Your task to perform on an android device: Search for good Indian restaurants Image 0: 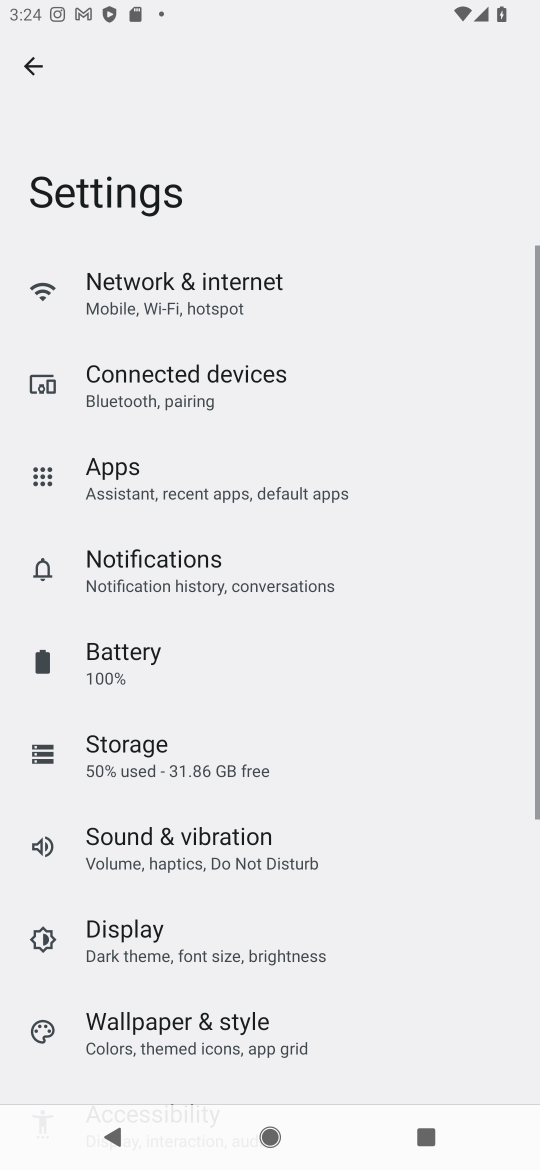
Step 0: press home button
Your task to perform on an android device: Search for good Indian restaurants Image 1: 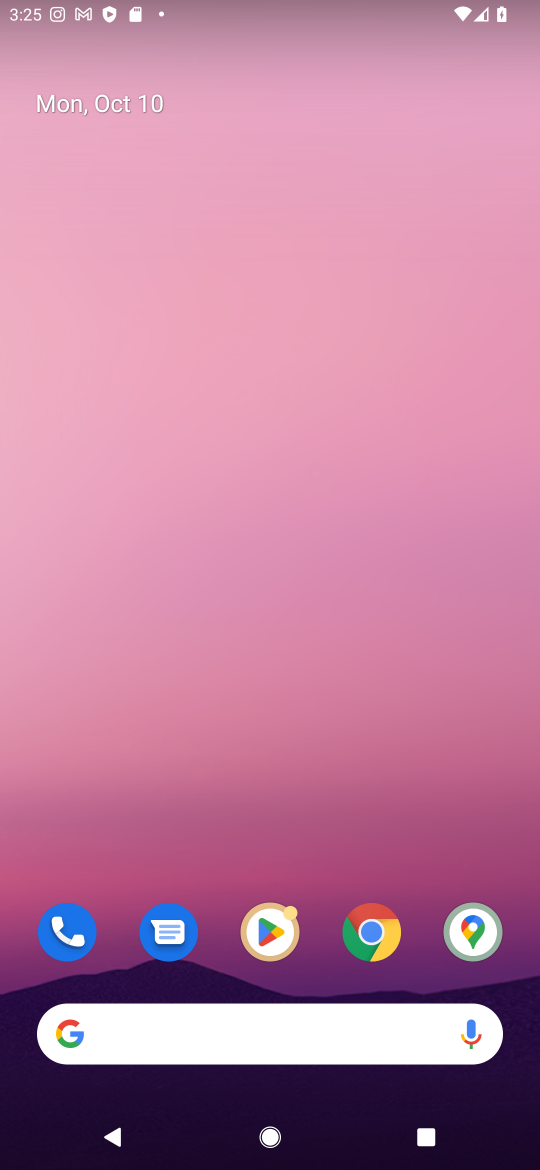
Step 1: click (309, 1036)
Your task to perform on an android device: Search for good Indian restaurants Image 2: 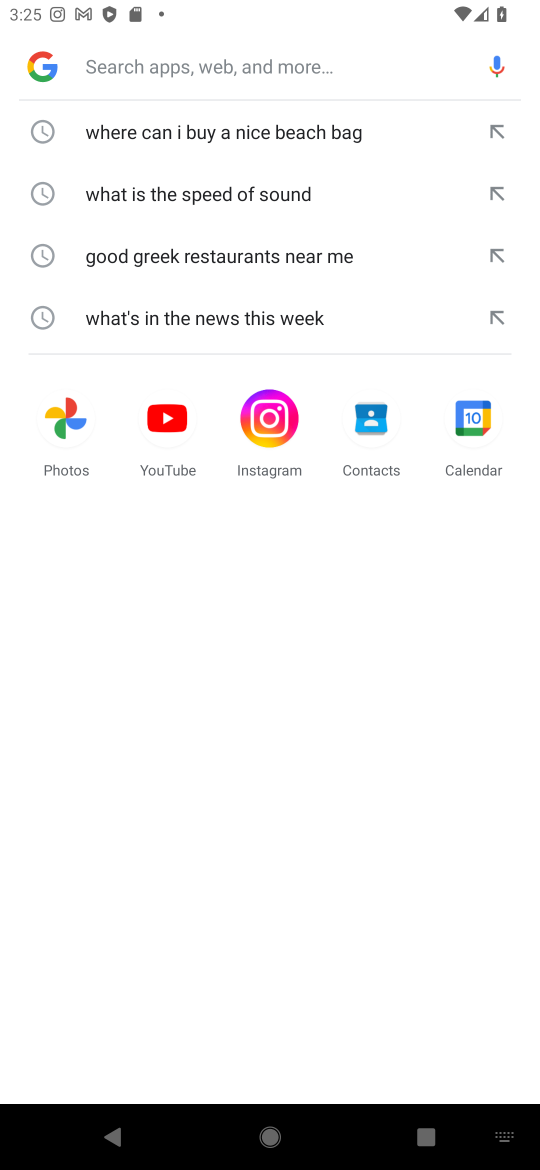
Step 2: press enter
Your task to perform on an android device: Search for good Indian restaurants Image 3: 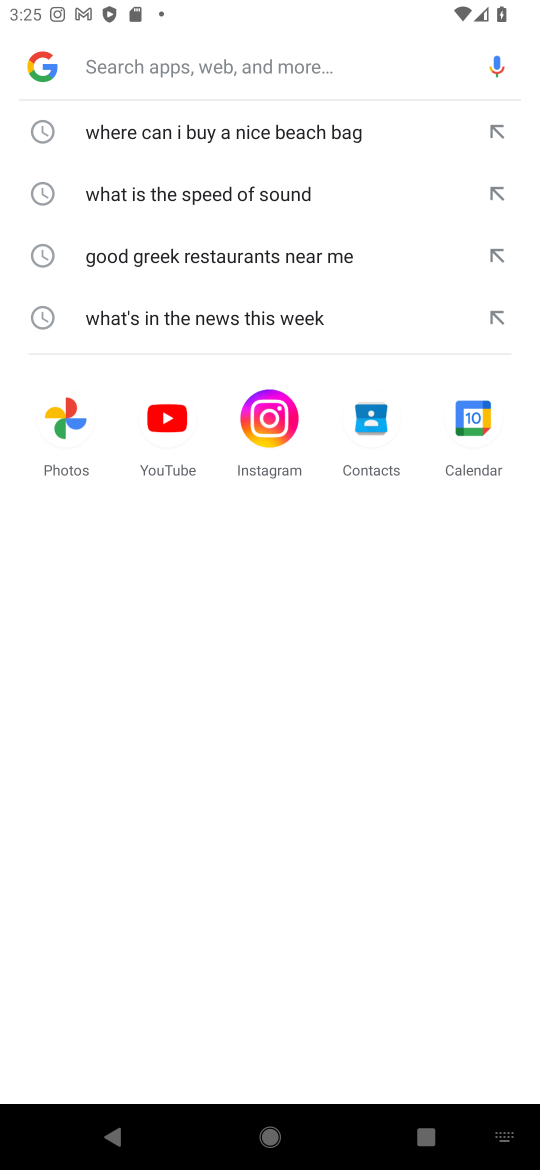
Step 3: type "Search for good Indian restaurants"
Your task to perform on an android device: Search for good Indian restaurants Image 4: 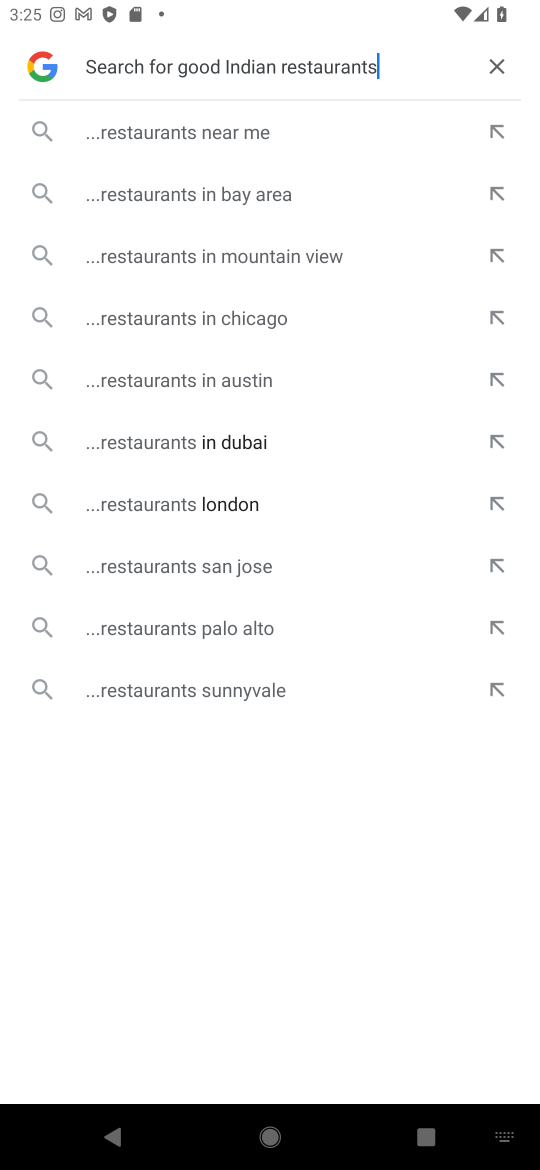
Step 4: press enter
Your task to perform on an android device: Search for good Indian restaurants Image 5: 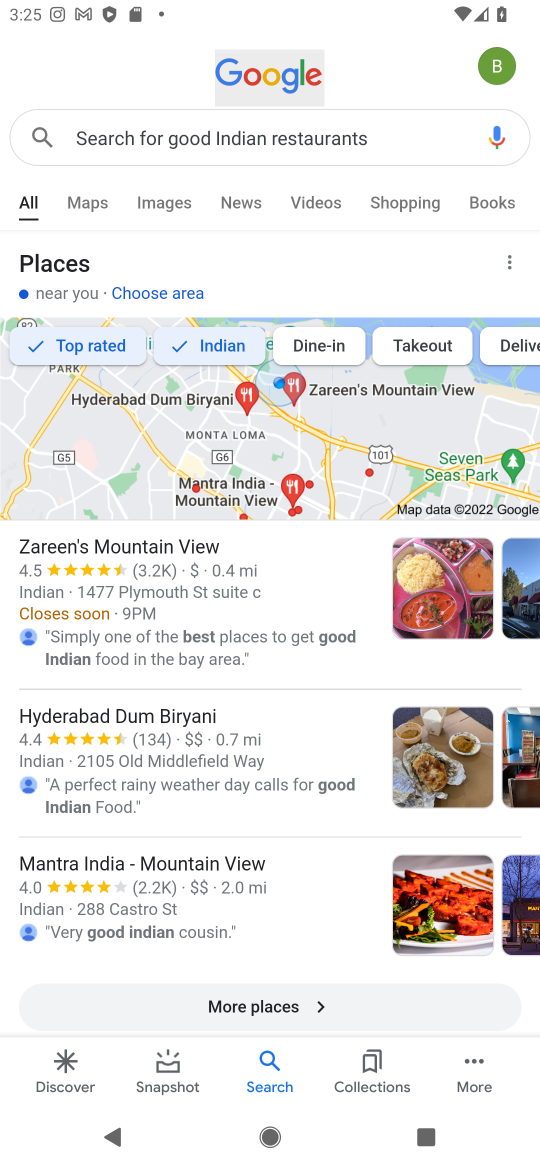
Step 5: click (262, 1008)
Your task to perform on an android device: Search for good Indian restaurants Image 6: 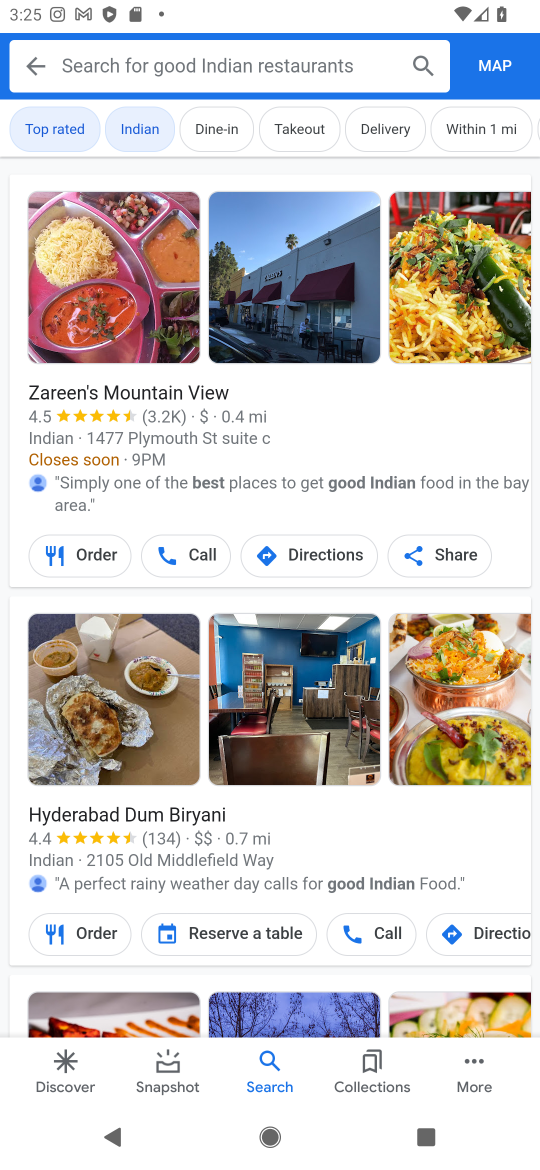
Step 6: task complete